Your task to perform on an android device: open sync settings in chrome Image 0: 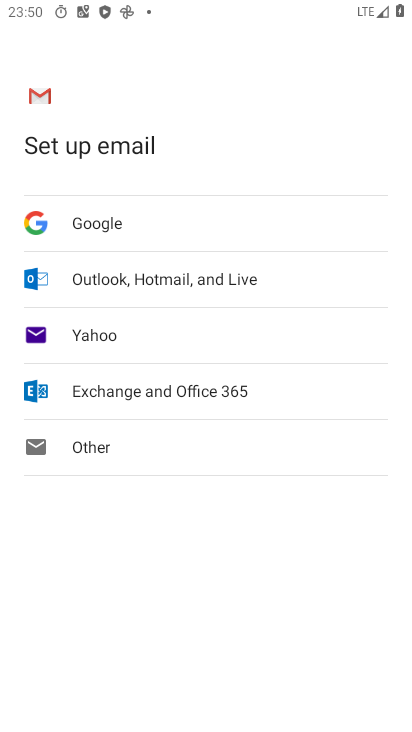
Step 0: press home button
Your task to perform on an android device: open sync settings in chrome Image 1: 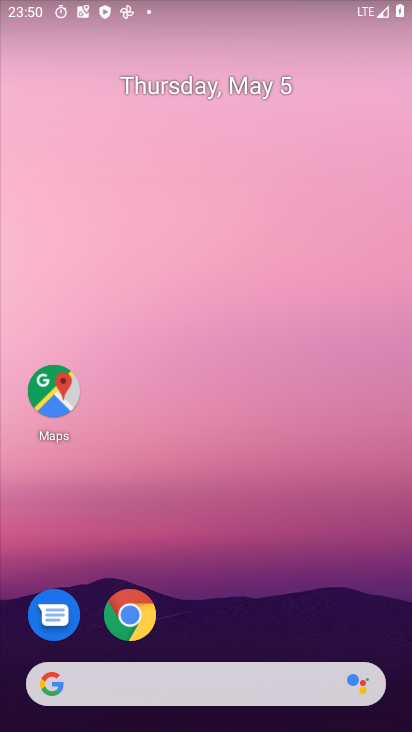
Step 1: drag from (239, 602) to (292, 114)
Your task to perform on an android device: open sync settings in chrome Image 2: 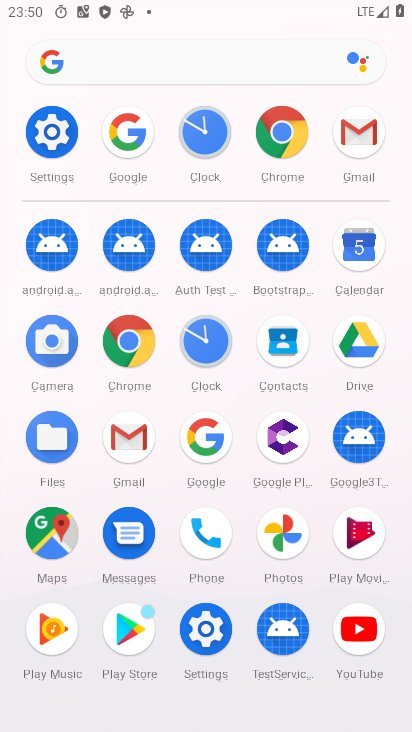
Step 2: click (283, 132)
Your task to perform on an android device: open sync settings in chrome Image 3: 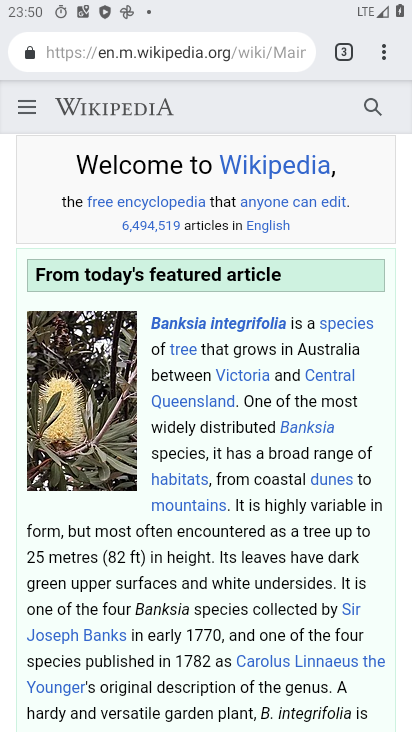
Step 3: click (373, 53)
Your task to perform on an android device: open sync settings in chrome Image 4: 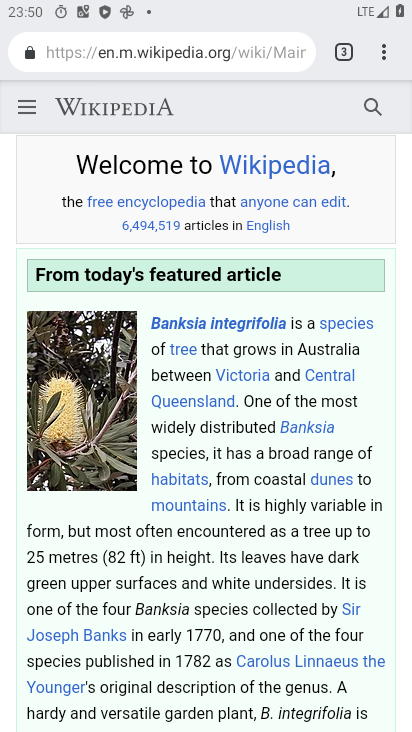
Step 4: click (375, 50)
Your task to perform on an android device: open sync settings in chrome Image 5: 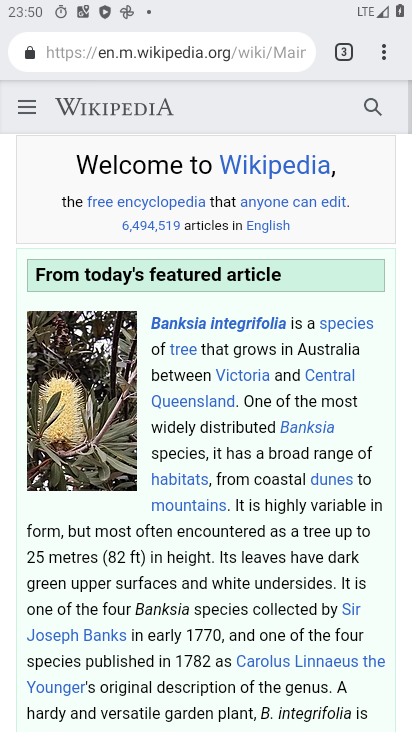
Step 5: click (375, 50)
Your task to perform on an android device: open sync settings in chrome Image 6: 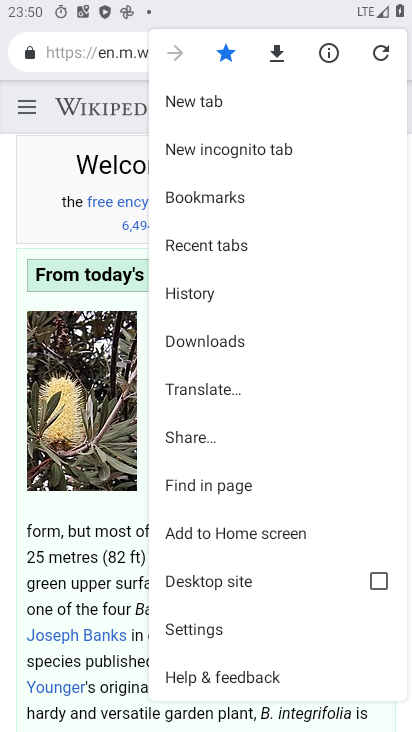
Step 6: click (210, 643)
Your task to perform on an android device: open sync settings in chrome Image 7: 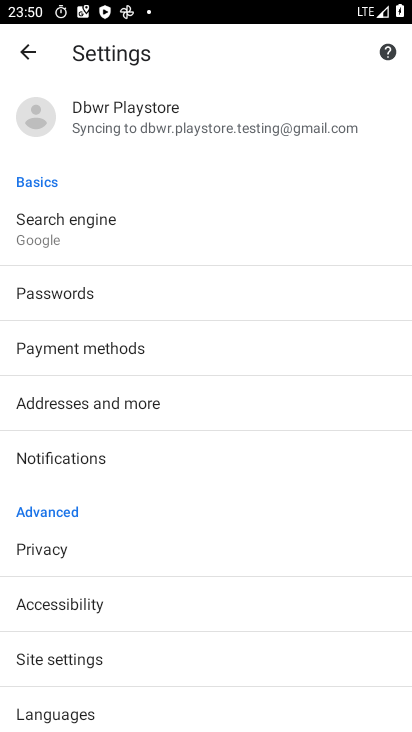
Step 7: drag from (238, 652) to (239, 266)
Your task to perform on an android device: open sync settings in chrome Image 8: 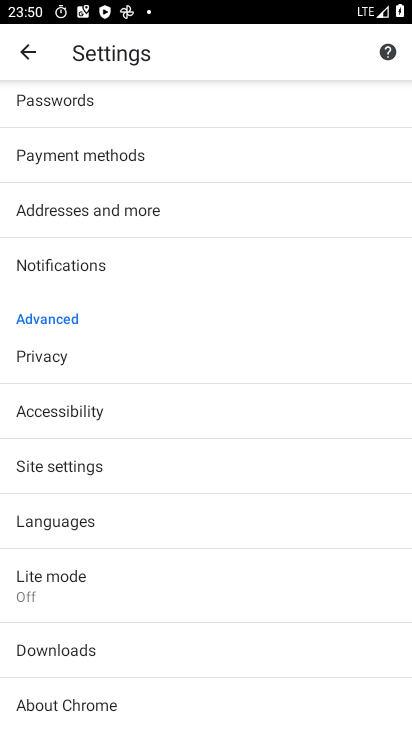
Step 8: click (56, 465)
Your task to perform on an android device: open sync settings in chrome Image 9: 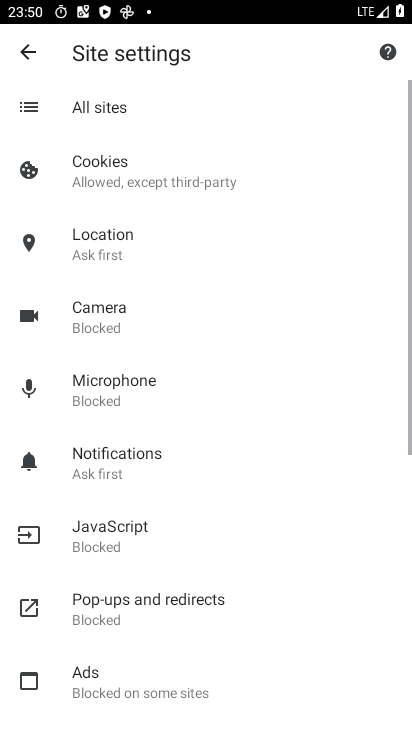
Step 9: drag from (208, 596) to (229, 97)
Your task to perform on an android device: open sync settings in chrome Image 10: 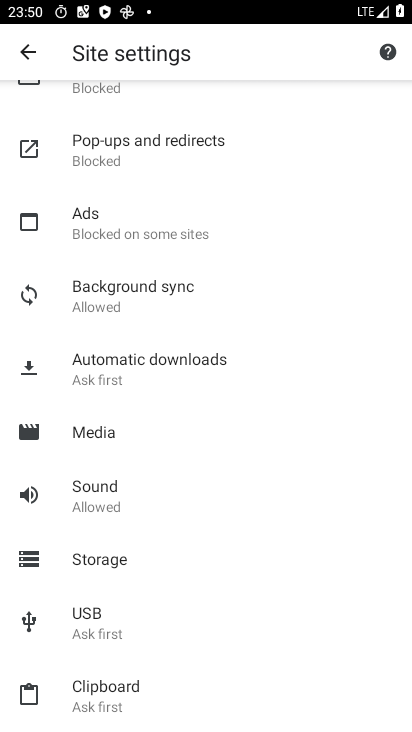
Step 10: click (178, 297)
Your task to perform on an android device: open sync settings in chrome Image 11: 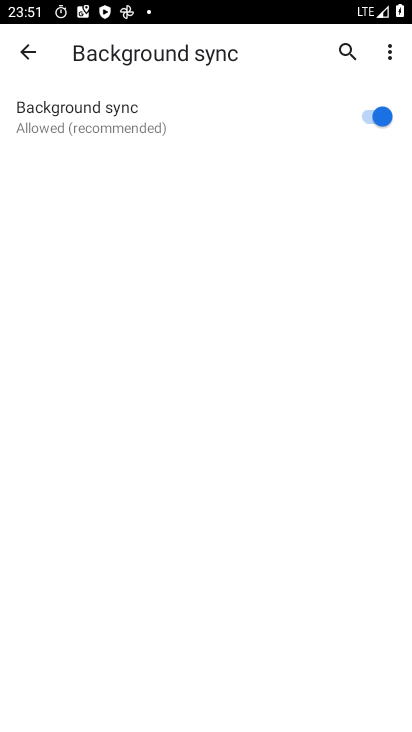
Step 11: task complete